Your task to perform on an android device: set the timer Image 0: 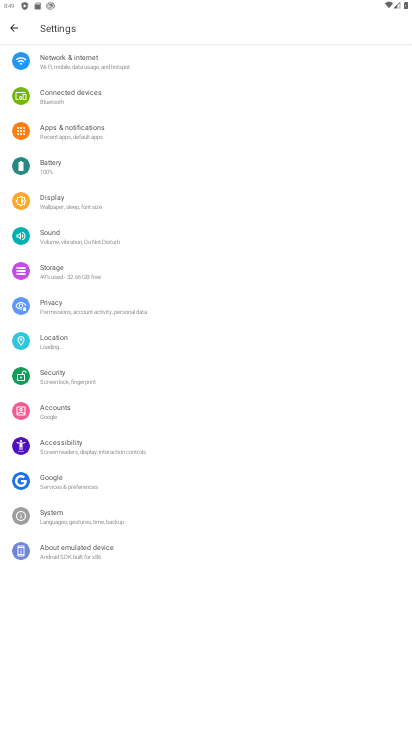
Step 0: press home button
Your task to perform on an android device: set the timer Image 1: 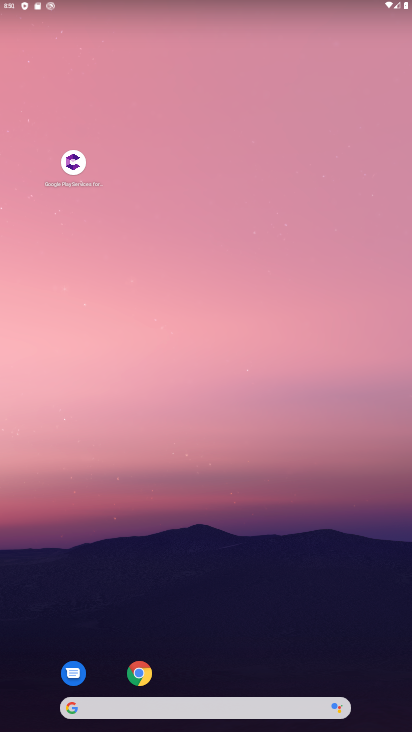
Step 1: drag from (258, 692) to (222, 314)
Your task to perform on an android device: set the timer Image 2: 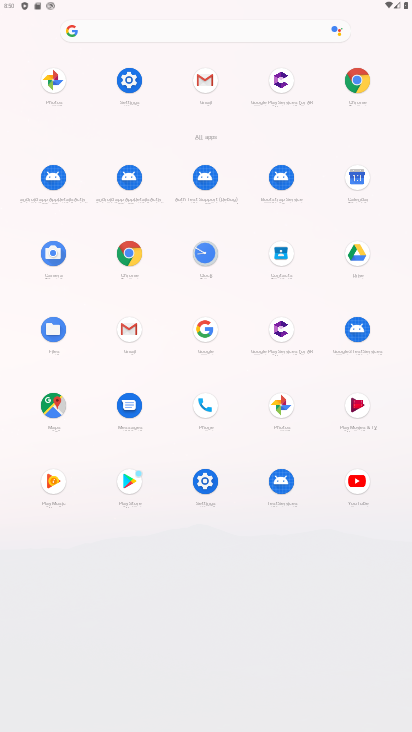
Step 2: click (210, 255)
Your task to perform on an android device: set the timer Image 3: 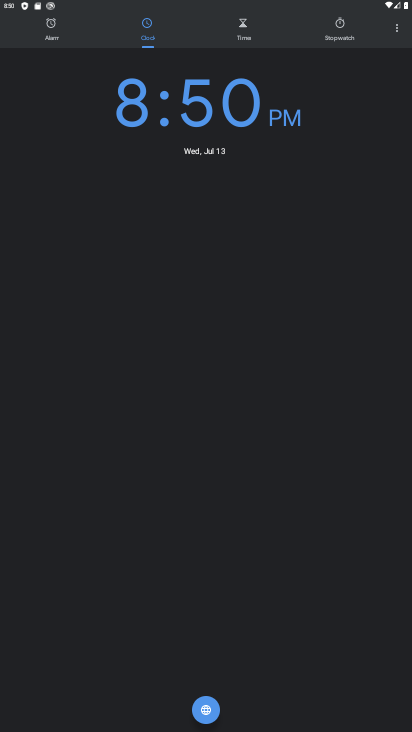
Step 3: click (257, 39)
Your task to perform on an android device: set the timer Image 4: 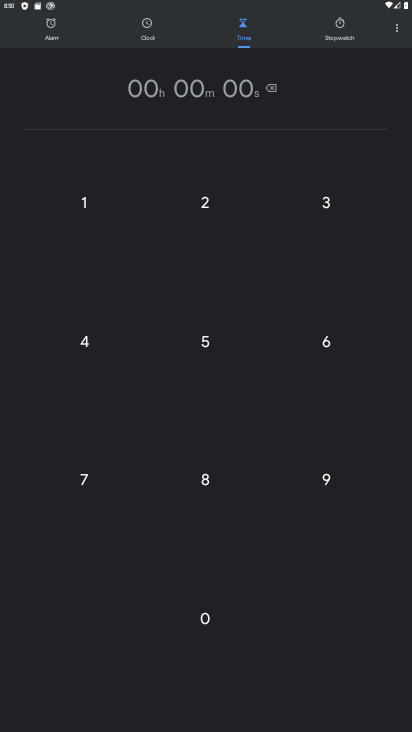
Step 4: click (199, 627)
Your task to perform on an android device: set the timer Image 5: 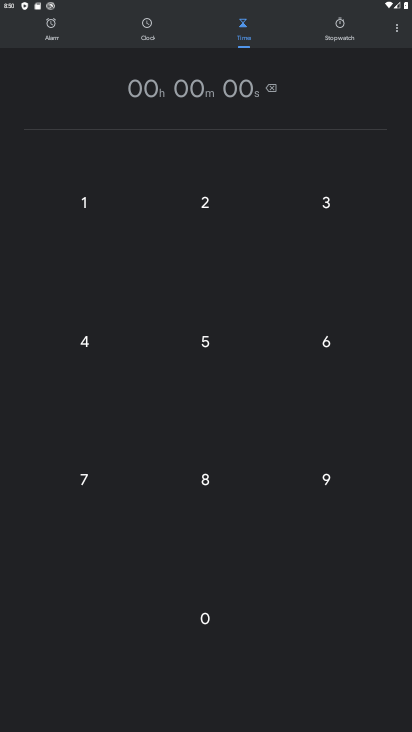
Step 5: click (199, 625)
Your task to perform on an android device: set the timer Image 6: 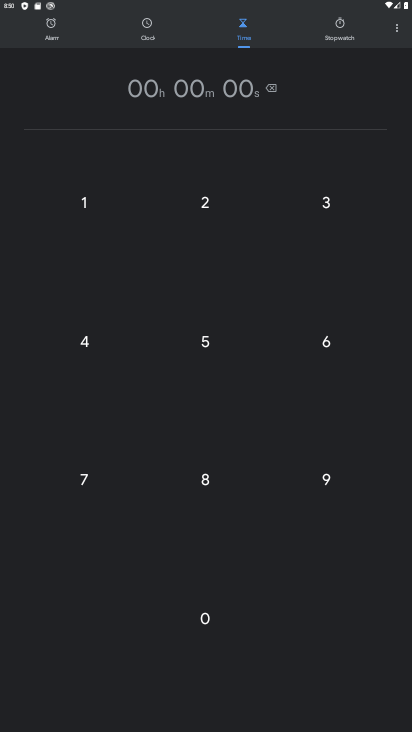
Step 6: click (204, 621)
Your task to perform on an android device: set the timer Image 7: 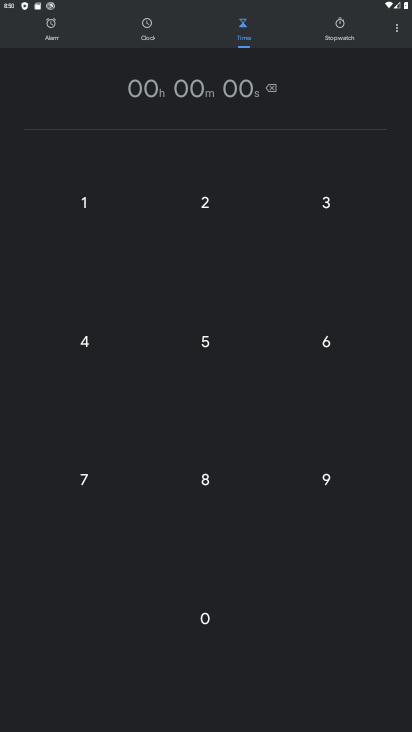
Step 7: click (207, 343)
Your task to perform on an android device: set the timer Image 8: 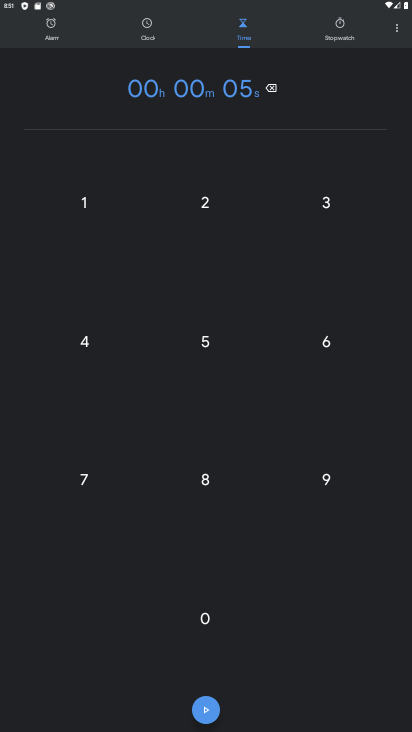
Step 8: click (203, 614)
Your task to perform on an android device: set the timer Image 9: 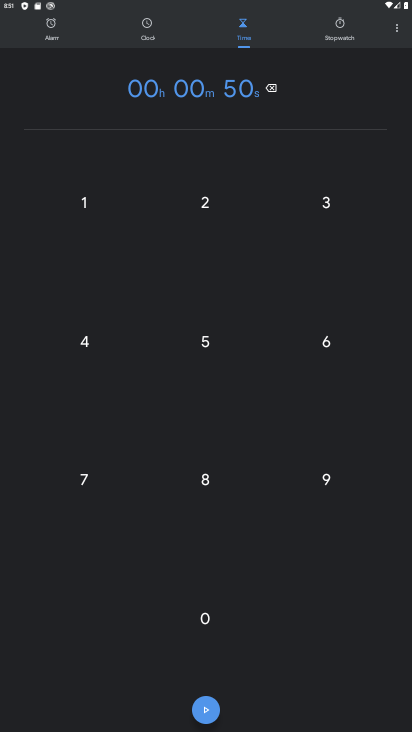
Step 9: click (203, 614)
Your task to perform on an android device: set the timer Image 10: 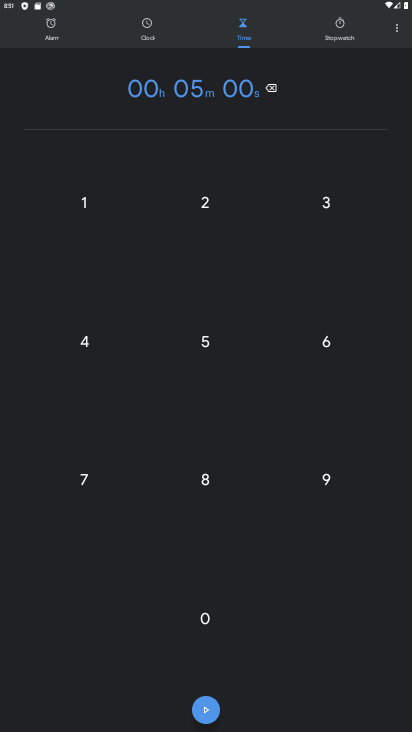
Step 10: click (203, 714)
Your task to perform on an android device: set the timer Image 11: 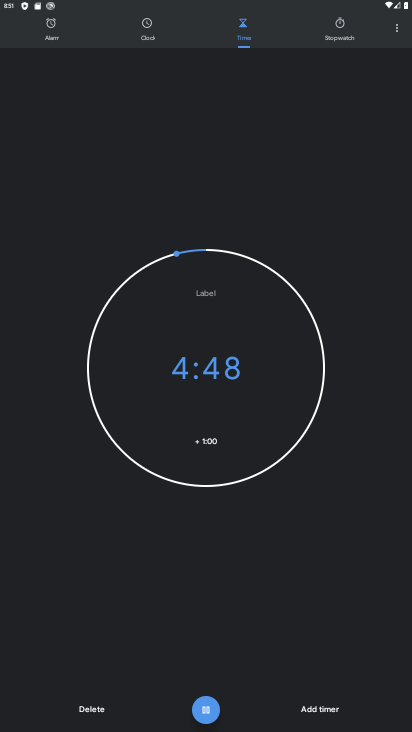
Step 11: task complete